Your task to perform on an android device: open chrome privacy settings Image 0: 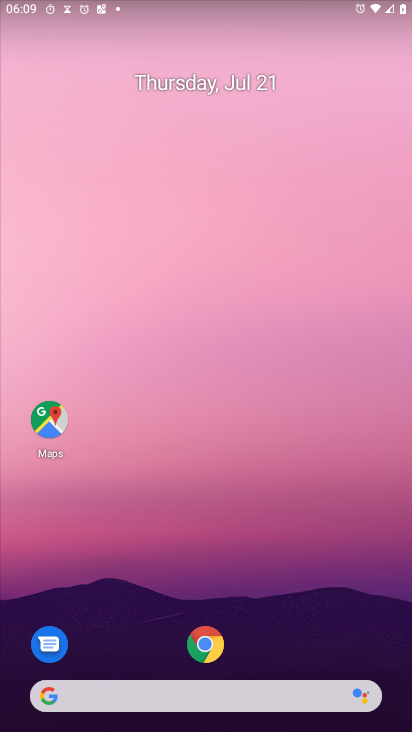
Step 0: press home button
Your task to perform on an android device: open chrome privacy settings Image 1: 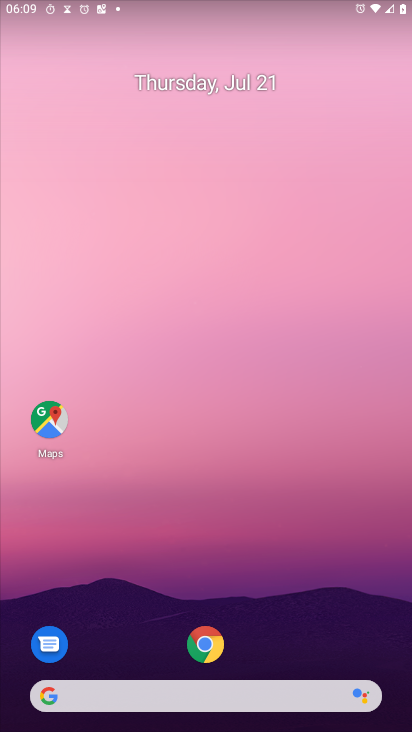
Step 1: click (207, 652)
Your task to perform on an android device: open chrome privacy settings Image 2: 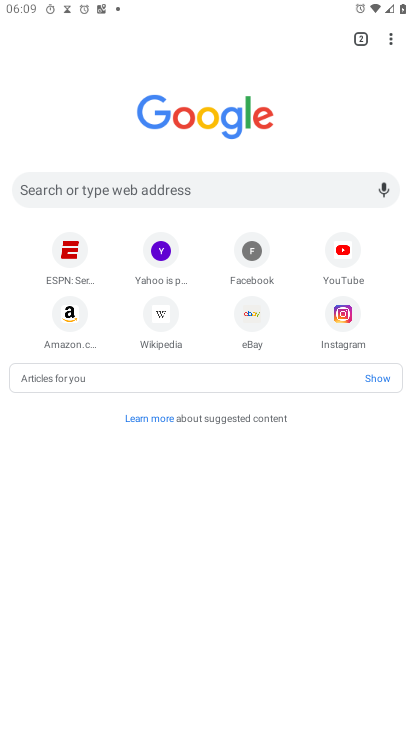
Step 2: drag from (389, 40) to (249, 379)
Your task to perform on an android device: open chrome privacy settings Image 3: 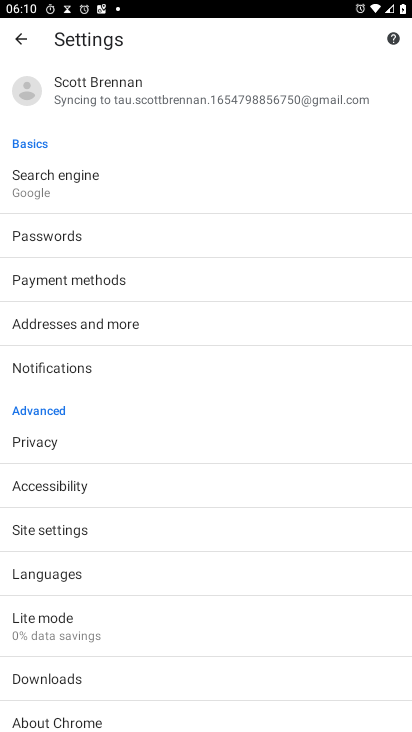
Step 3: click (32, 437)
Your task to perform on an android device: open chrome privacy settings Image 4: 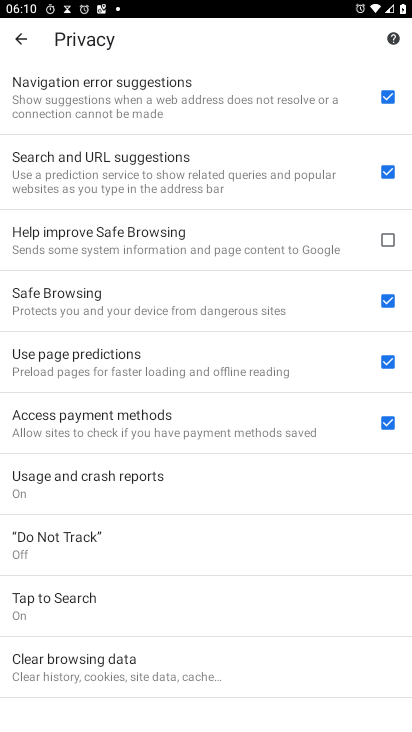
Step 4: task complete